Your task to perform on an android device: toggle show notifications on the lock screen Image 0: 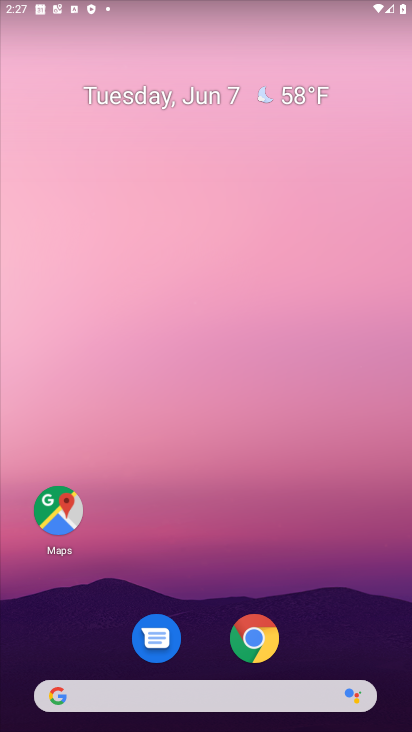
Step 0: drag from (213, 613) to (267, 202)
Your task to perform on an android device: toggle show notifications on the lock screen Image 1: 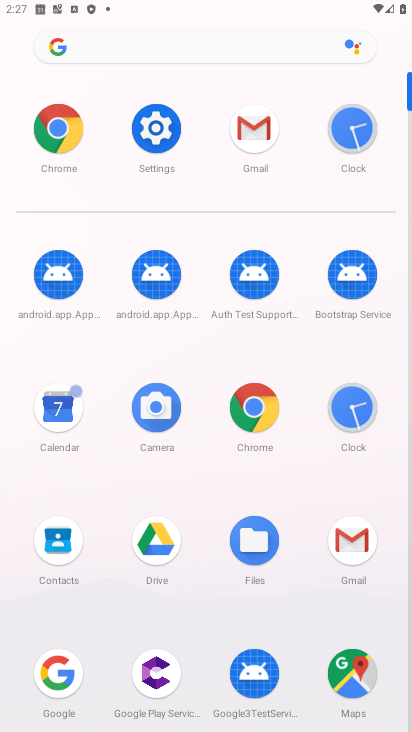
Step 1: click (160, 120)
Your task to perform on an android device: toggle show notifications on the lock screen Image 2: 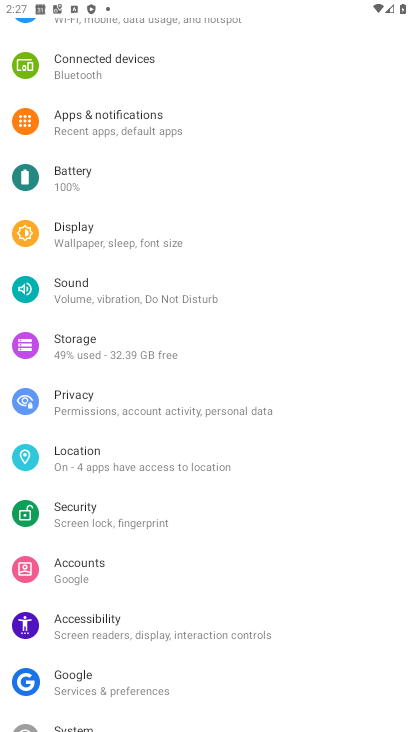
Step 2: click (145, 117)
Your task to perform on an android device: toggle show notifications on the lock screen Image 3: 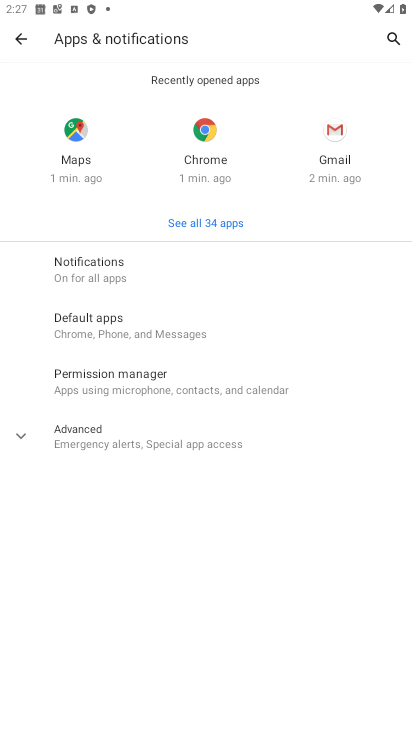
Step 3: click (105, 271)
Your task to perform on an android device: toggle show notifications on the lock screen Image 4: 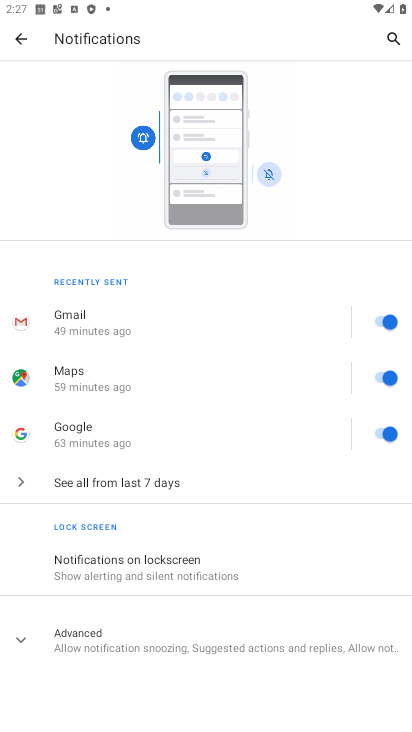
Step 4: click (130, 562)
Your task to perform on an android device: toggle show notifications on the lock screen Image 5: 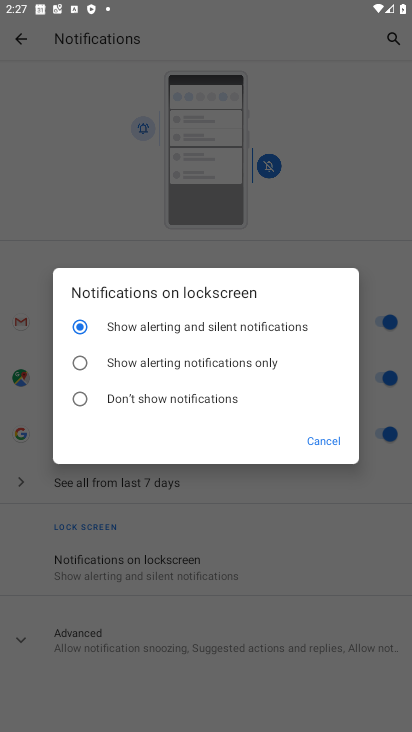
Step 5: click (71, 401)
Your task to perform on an android device: toggle show notifications on the lock screen Image 6: 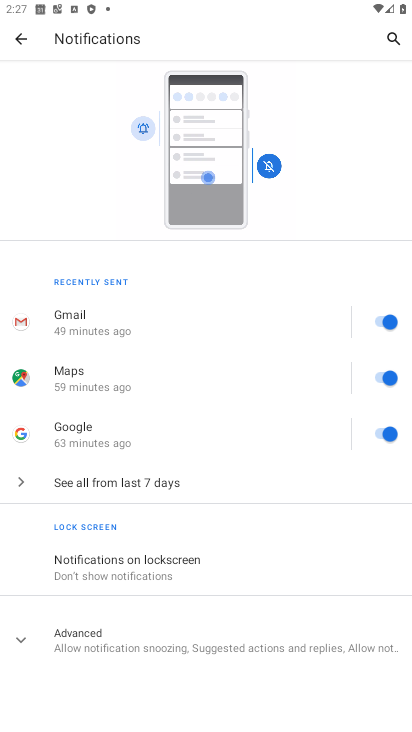
Step 6: task complete